Your task to perform on an android device: Show me productivity apps on the Play Store Image 0: 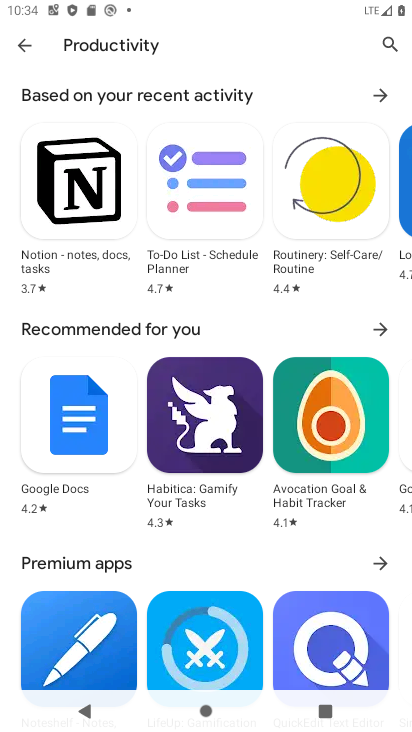
Step 0: task complete